Your task to perform on an android device: check android version Image 0: 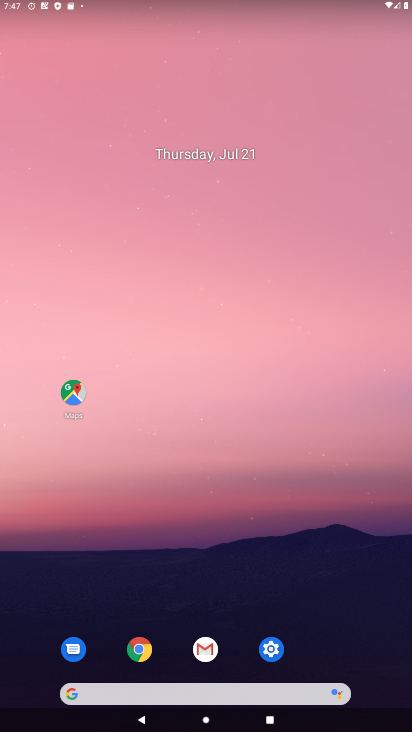
Step 0: press home button
Your task to perform on an android device: check android version Image 1: 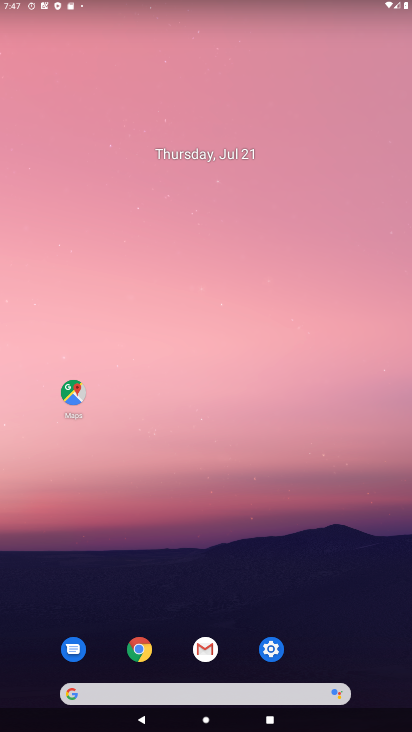
Step 1: click (268, 660)
Your task to perform on an android device: check android version Image 2: 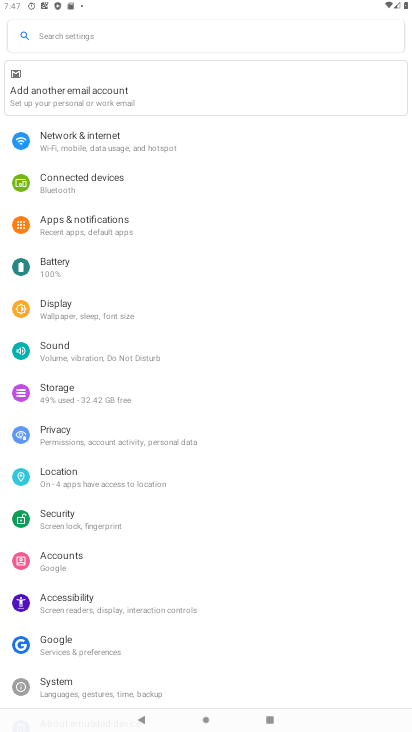
Step 2: click (67, 41)
Your task to perform on an android device: check android version Image 3: 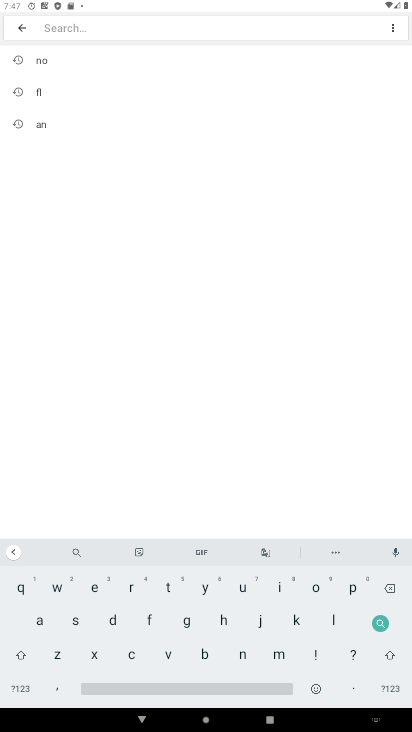
Step 3: click (38, 616)
Your task to perform on an android device: check android version Image 4: 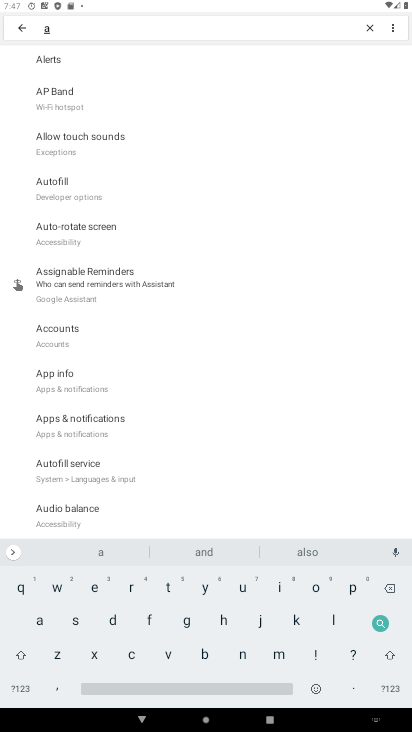
Step 4: click (245, 656)
Your task to perform on an android device: check android version Image 5: 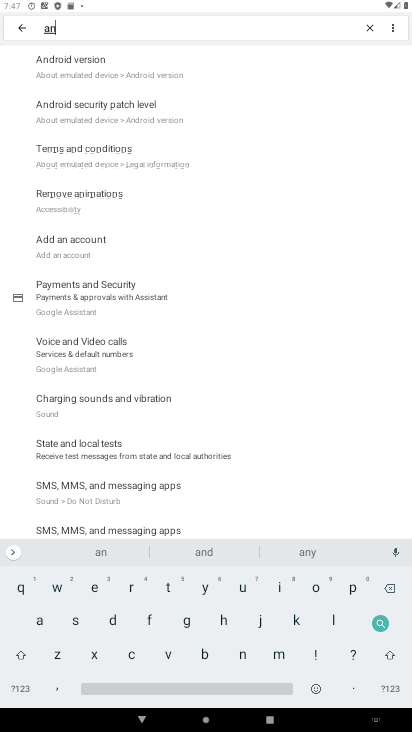
Step 5: click (151, 61)
Your task to perform on an android device: check android version Image 6: 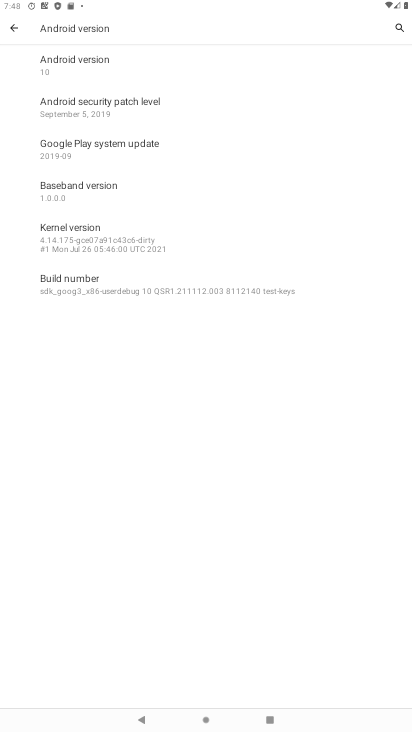
Step 6: task complete